Your task to perform on an android device: What is the recent news? Image 0: 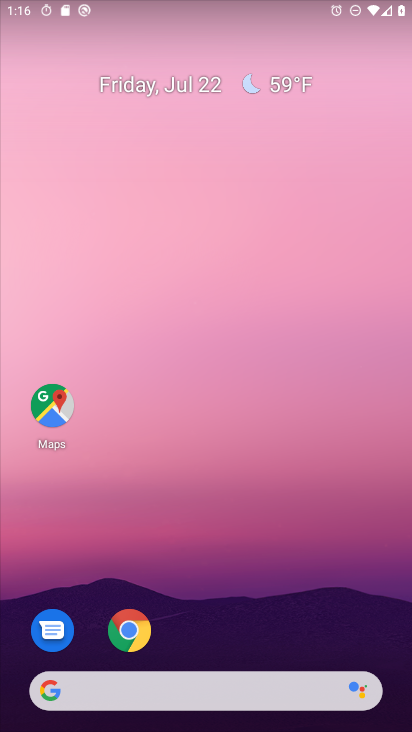
Step 0: click (50, 690)
Your task to perform on an android device: What is the recent news? Image 1: 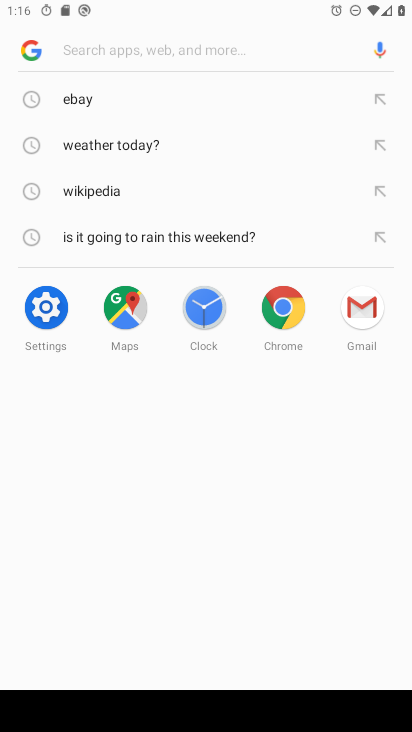
Step 1: type " recent news?"
Your task to perform on an android device: What is the recent news? Image 2: 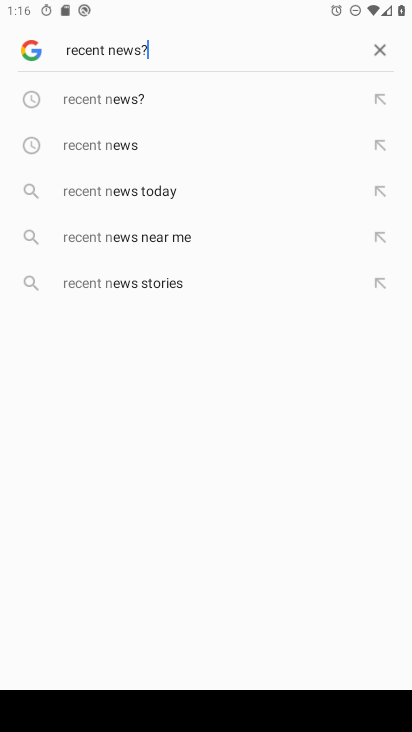
Step 2: press enter
Your task to perform on an android device: What is the recent news? Image 3: 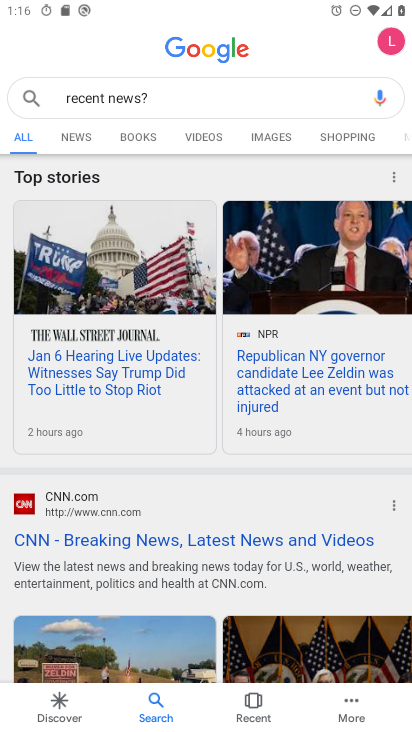
Step 3: task complete